Your task to perform on an android device: open app "DoorDash - Food Delivery" (install if not already installed) and enter user name: "Richard@outlook.com" and password: "informally" Image 0: 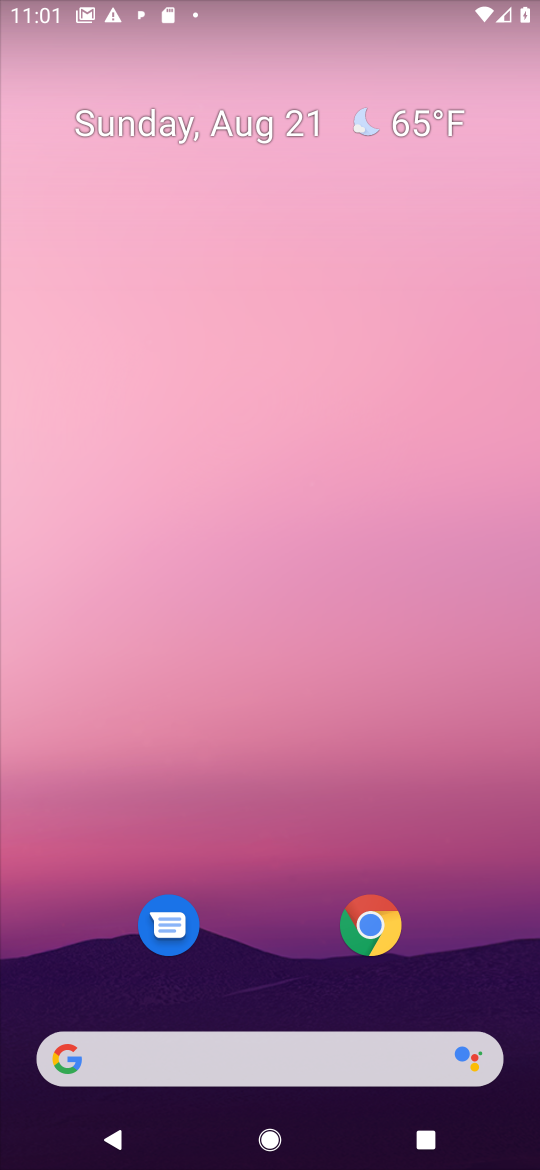
Step 0: drag from (349, 893) to (344, 130)
Your task to perform on an android device: open app "DoorDash - Food Delivery" (install if not already installed) and enter user name: "Richard@outlook.com" and password: "informally" Image 1: 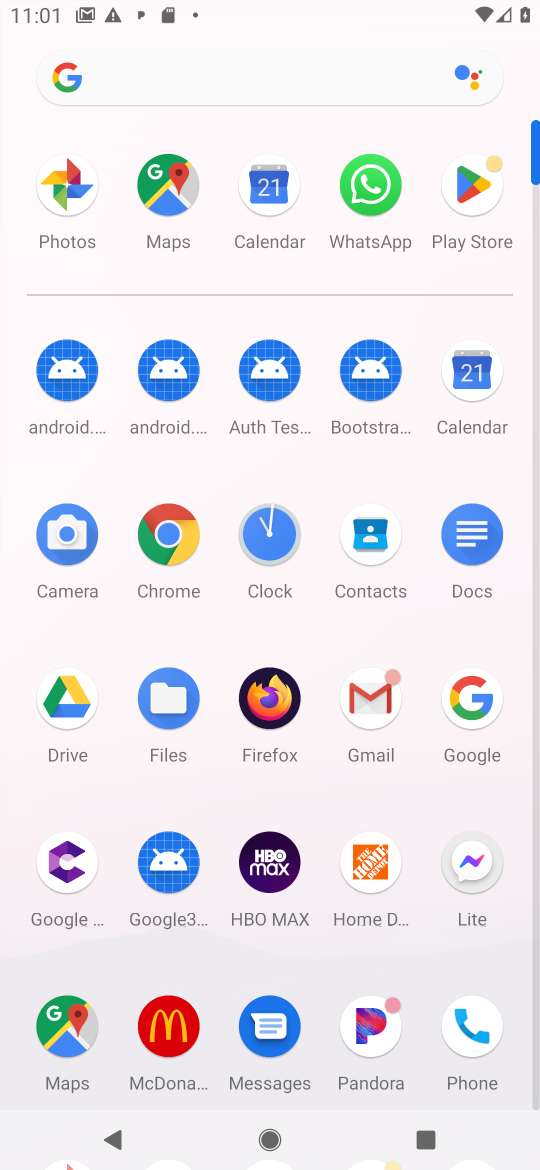
Step 1: click (500, 167)
Your task to perform on an android device: open app "DoorDash - Food Delivery" (install if not already installed) and enter user name: "Richard@outlook.com" and password: "informally" Image 2: 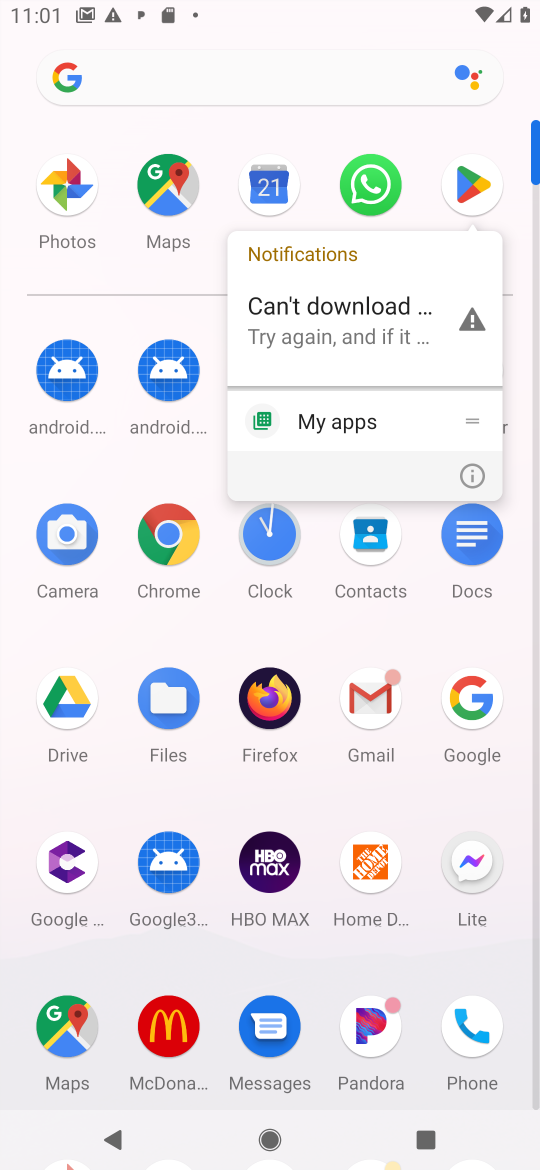
Step 2: click (464, 182)
Your task to perform on an android device: open app "DoorDash - Food Delivery" (install if not already installed) and enter user name: "Richard@outlook.com" and password: "informally" Image 3: 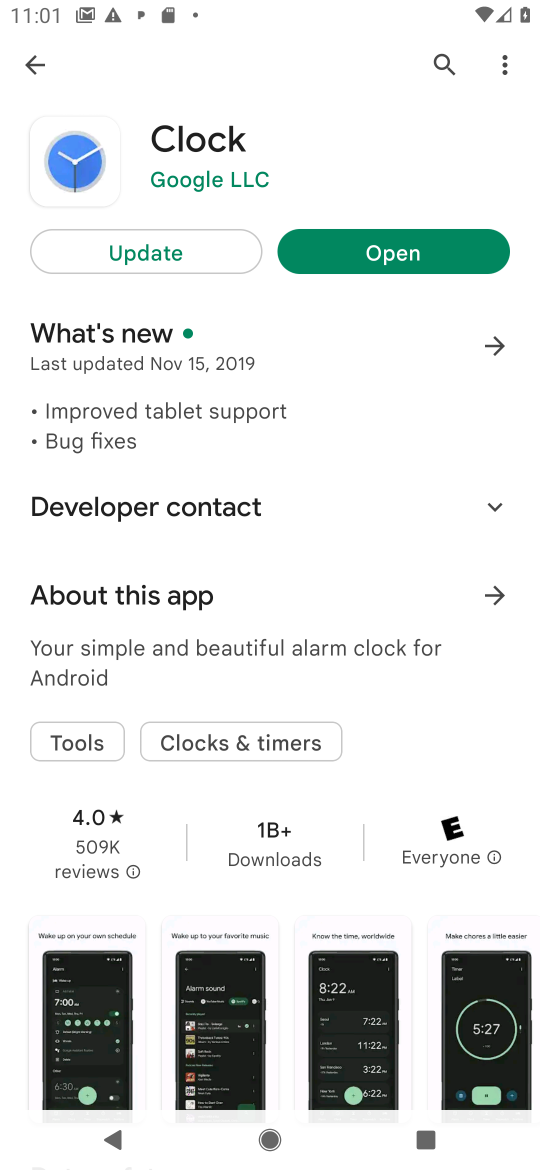
Step 3: click (436, 79)
Your task to perform on an android device: open app "DoorDash - Food Delivery" (install if not already installed) and enter user name: "Richard@outlook.com" and password: "informally" Image 4: 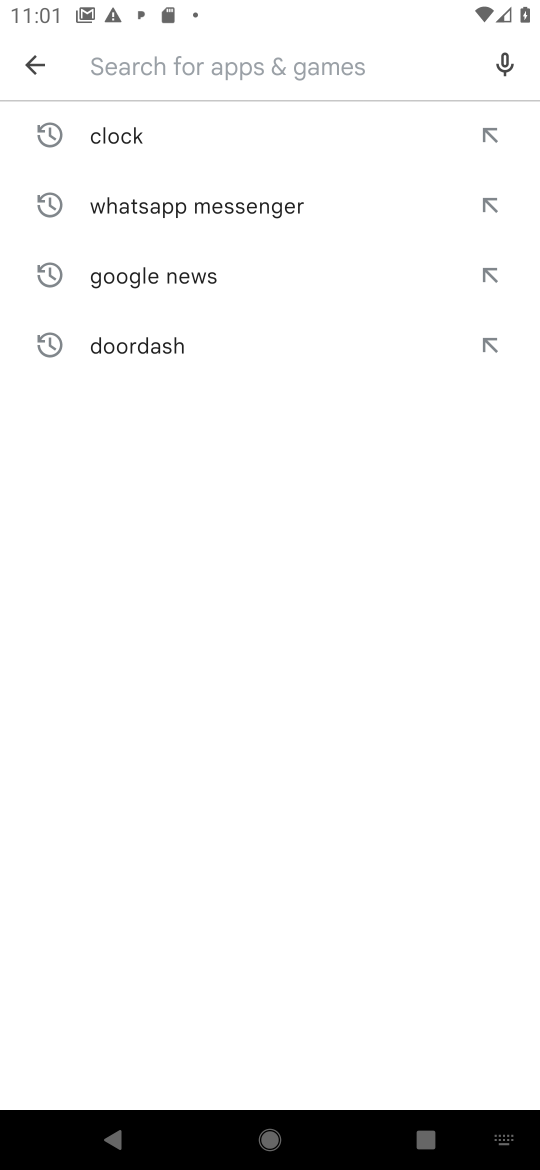
Step 4: click (187, 67)
Your task to perform on an android device: open app "DoorDash - Food Delivery" (install if not already installed) and enter user name: "Richard@outlook.com" and password: "informally" Image 5: 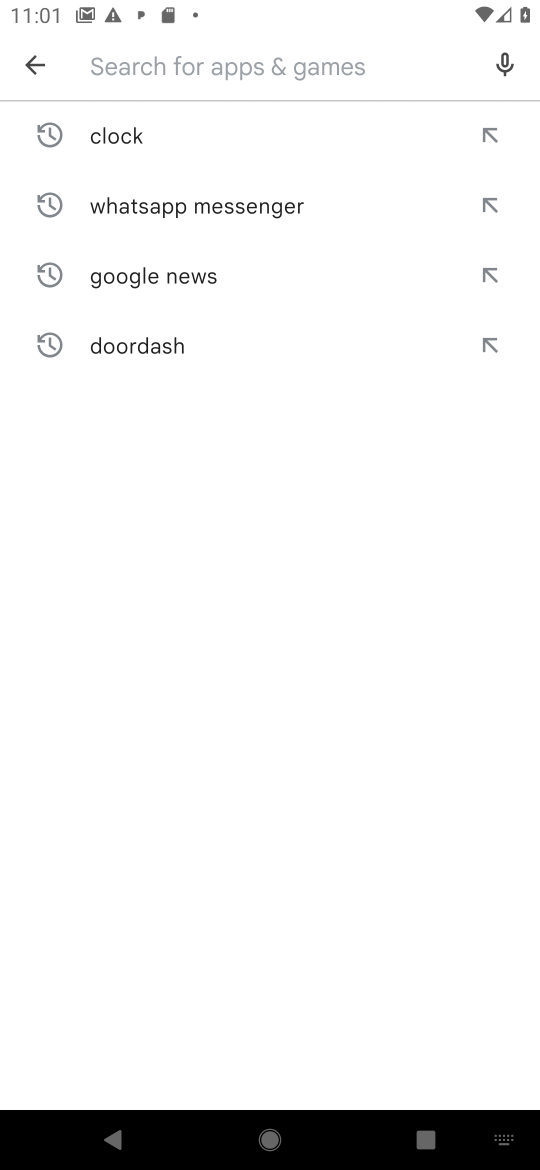
Step 5: type "DoorDash"
Your task to perform on an android device: open app "DoorDash - Food Delivery" (install if not already installed) and enter user name: "Richard@outlook.com" and password: "informally" Image 6: 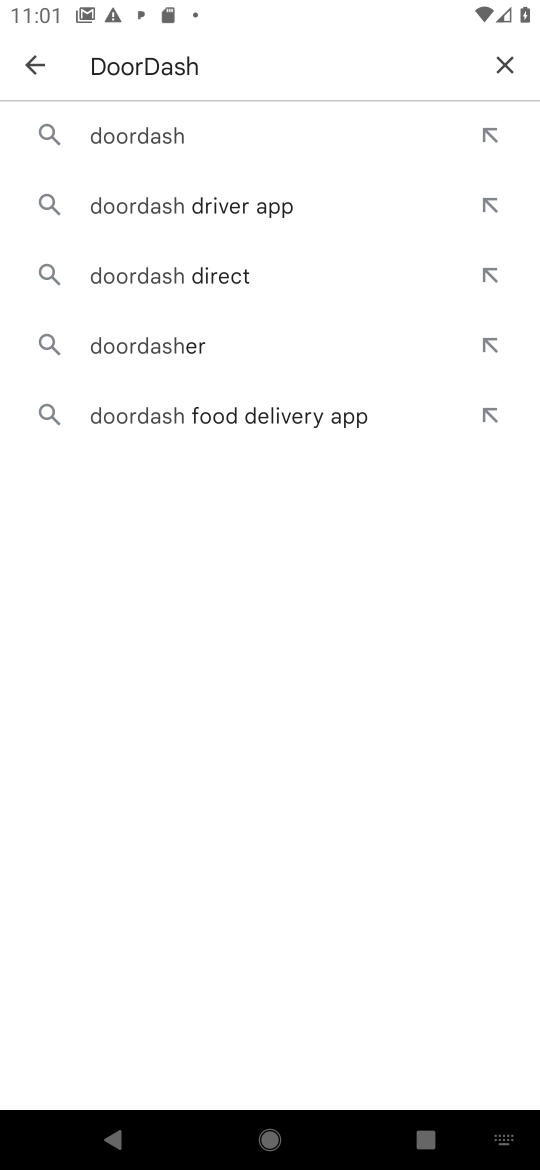
Step 6: click (198, 148)
Your task to perform on an android device: open app "DoorDash - Food Delivery" (install if not already installed) and enter user name: "Richard@outlook.com" and password: "informally" Image 7: 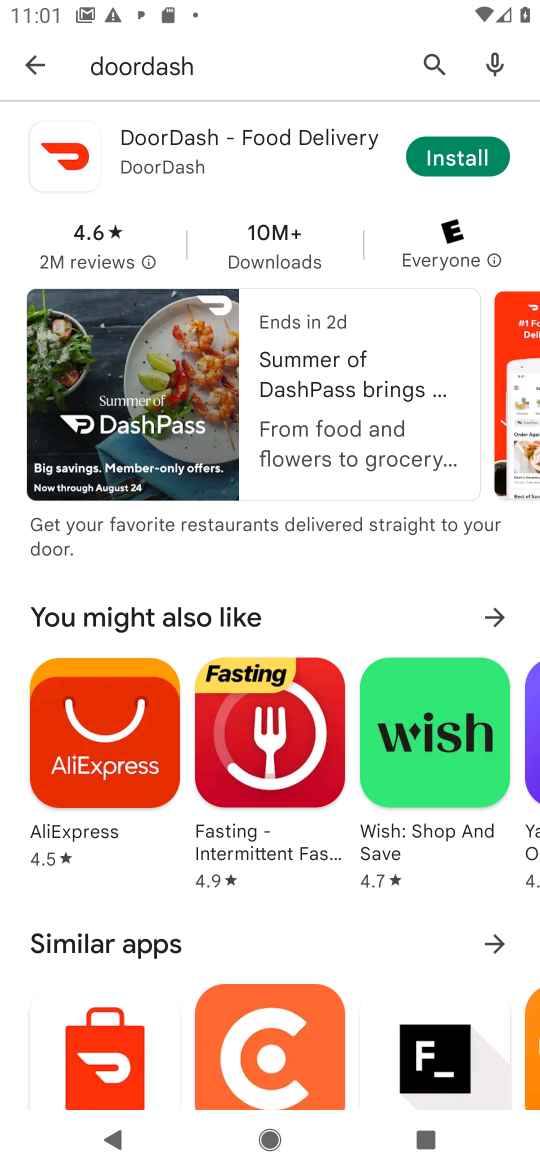
Step 7: click (496, 153)
Your task to perform on an android device: open app "DoorDash - Food Delivery" (install if not already installed) and enter user name: "Richard@outlook.com" and password: "informally" Image 8: 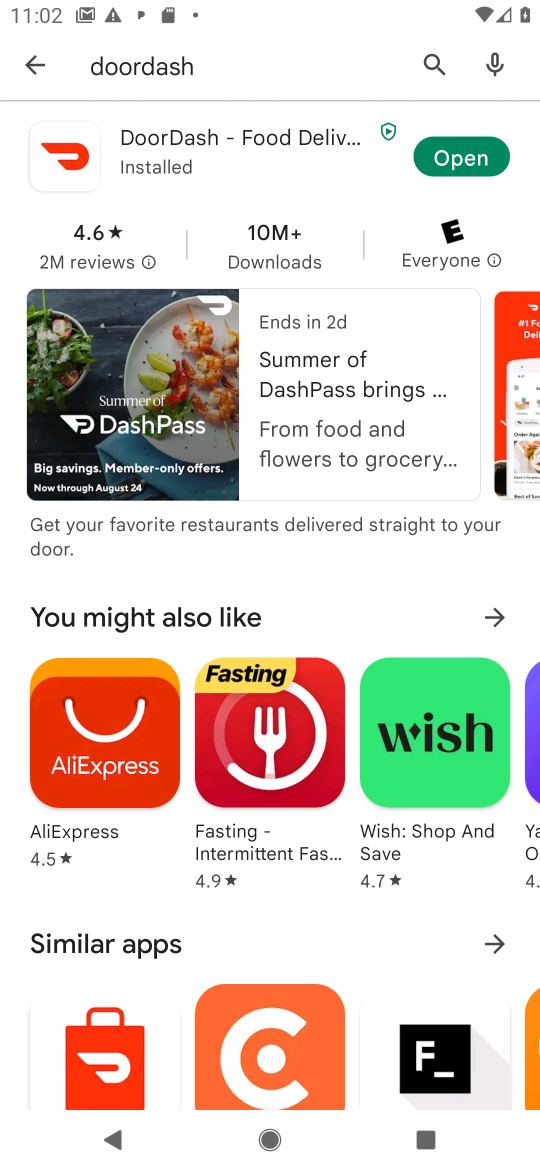
Step 8: click (451, 165)
Your task to perform on an android device: open app "DoorDash - Food Delivery" (install if not already installed) and enter user name: "Richard@outlook.com" and password: "informally" Image 9: 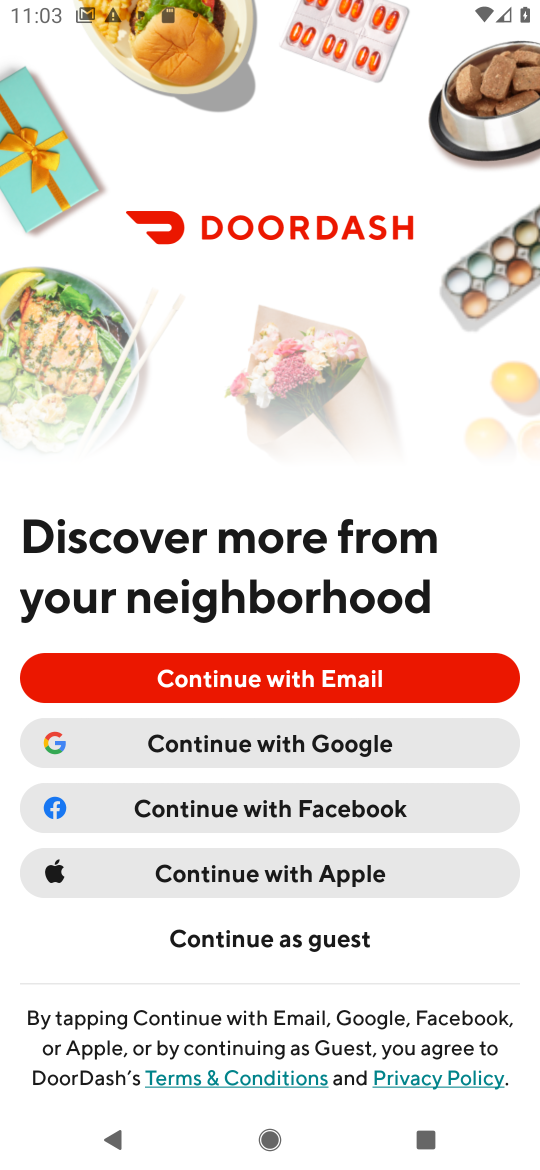
Step 9: click (298, 690)
Your task to perform on an android device: open app "DoorDash - Food Delivery" (install if not already installed) and enter user name: "Richard@outlook.com" and password: "informally" Image 10: 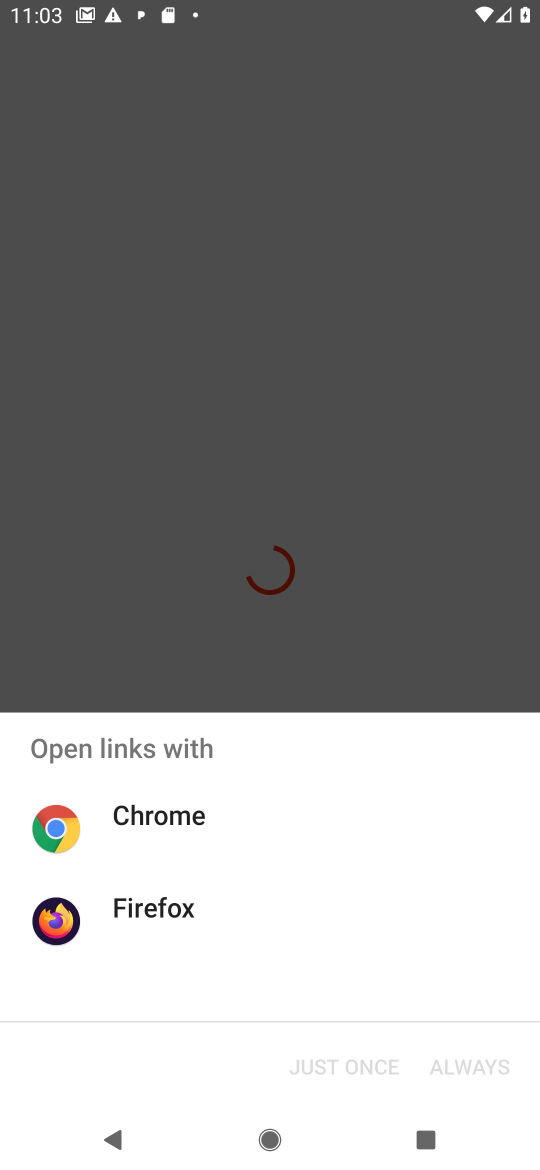
Step 10: click (218, 808)
Your task to perform on an android device: open app "DoorDash - Food Delivery" (install if not already installed) and enter user name: "Richard@outlook.com" and password: "informally" Image 11: 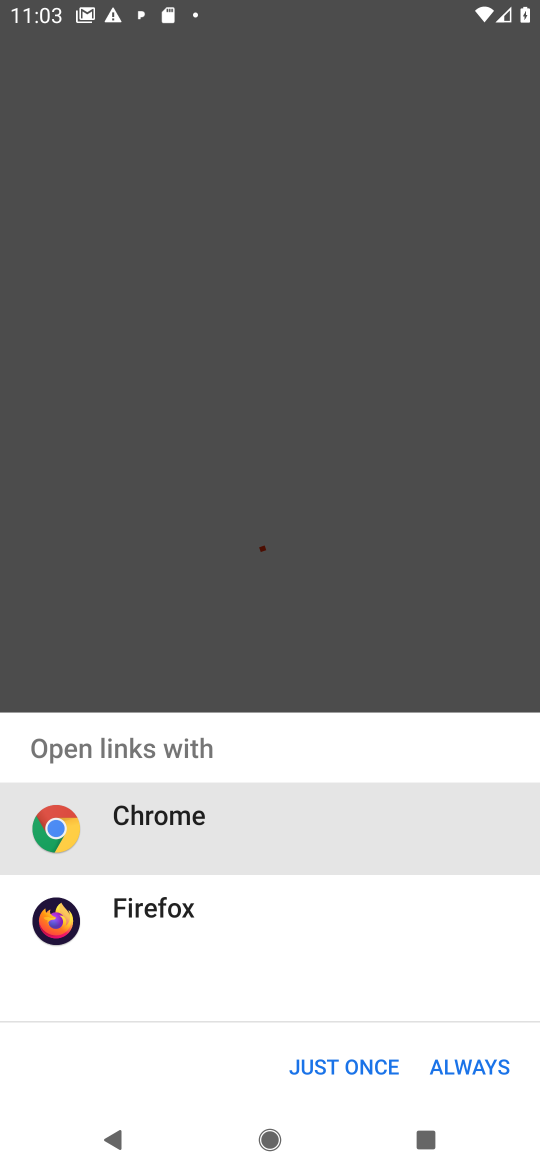
Step 11: click (363, 1047)
Your task to perform on an android device: open app "DoorDash - Food Delivery" (install if not already installed) and enter user name: "Richard@outlook.com" and password: "informally" Image 12: 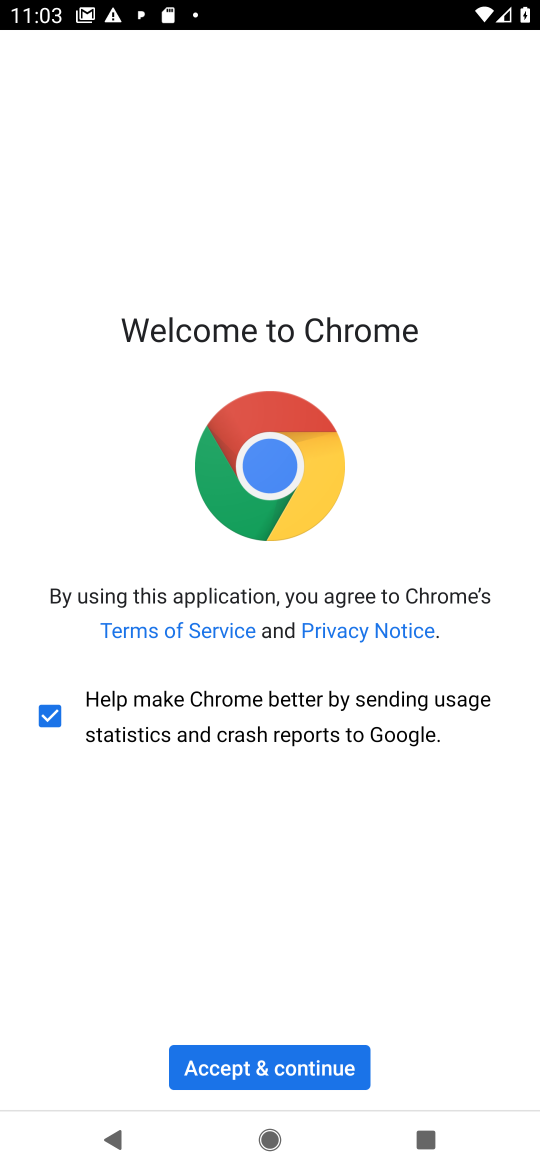
Step 12: click (295, 1069)
Your task to perform on an android device: open app "DoorDash - Food Delivery" (install if not already installed) and enter user name: "Richard@outlook.com" and password: "informally" Image 13: 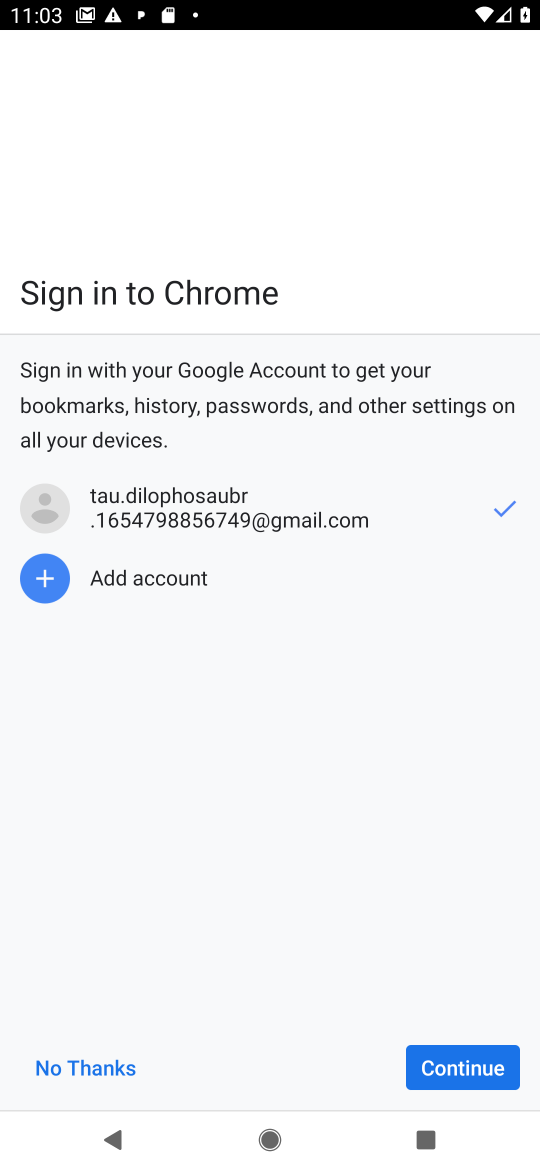
Step 13: click (431, 1073)
Your task to perform on an android device: open app "DoorDash - Food Delivery" (install if not already installed) and enter user name: "Richard@outlook.com" and password: "informally" Image 14: 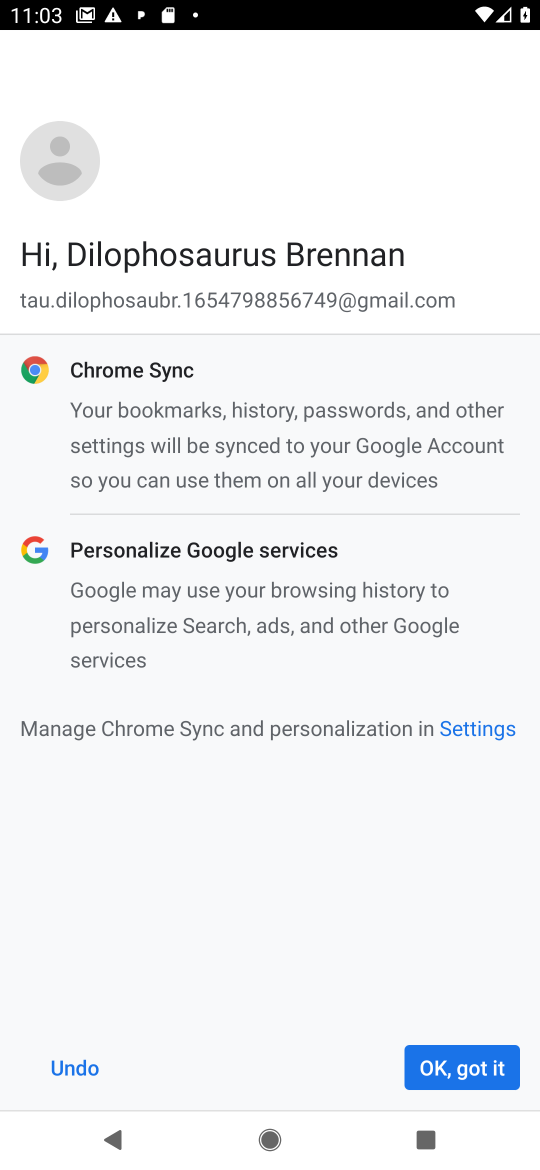
Step 14: click (431, 1073)
Your task to perform on an android device: open app "DoorDash - Food Delivery" (install if not already installed) and enter user name: "Richard@outlook.com" and password: "informally" Image 15: 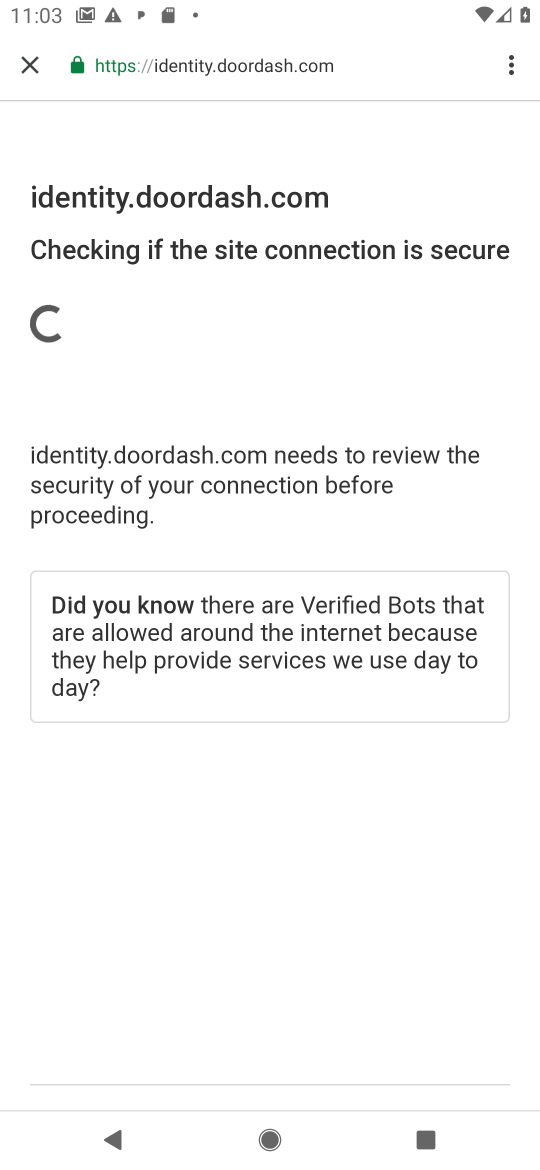
Step 15: task complete